Your task to perform on an android device: What's the weather? Image 0: 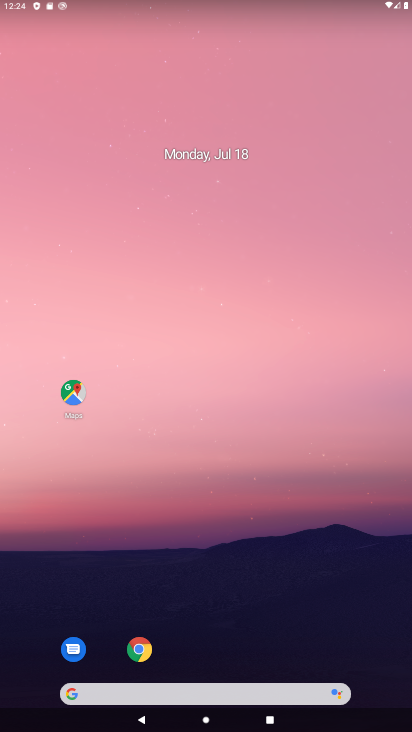
Step 0: click (106, 693)
Your task to perform on an android device: What's the weather? Image 1: 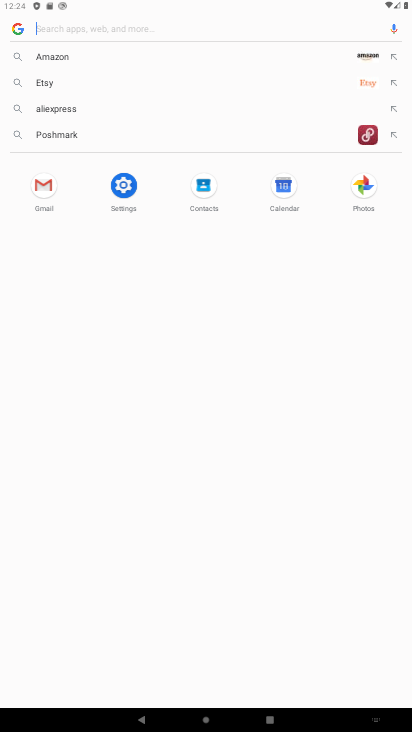
Step 1: type "What's the weather?"
Your task to perform on an android device: What's the weather? Image 2: 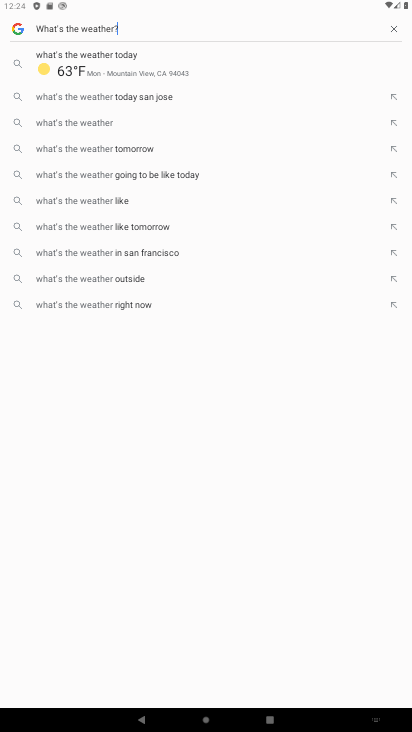
Step 2: type ""
Your task to perform on an android device: What's the weather? Image 3: 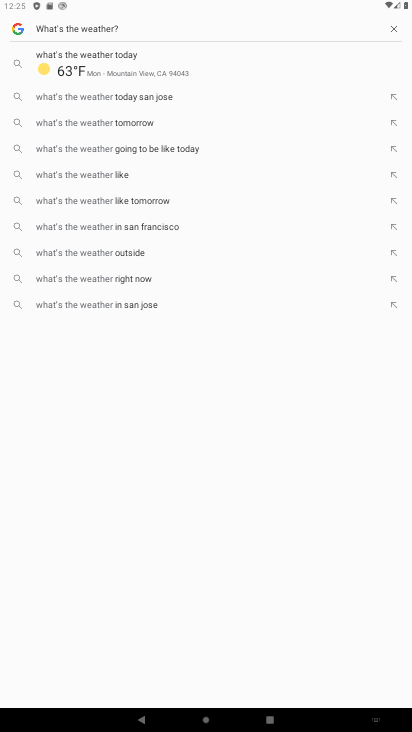
Step 3: type ""
Your task to perform on an android device: What's the weather? Image 4: 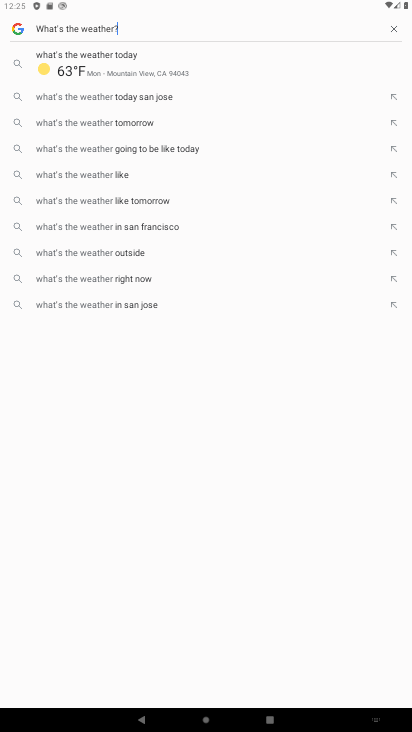
Step 4: type ""
Your task to perform on an android device: What's the weather? Image 5: 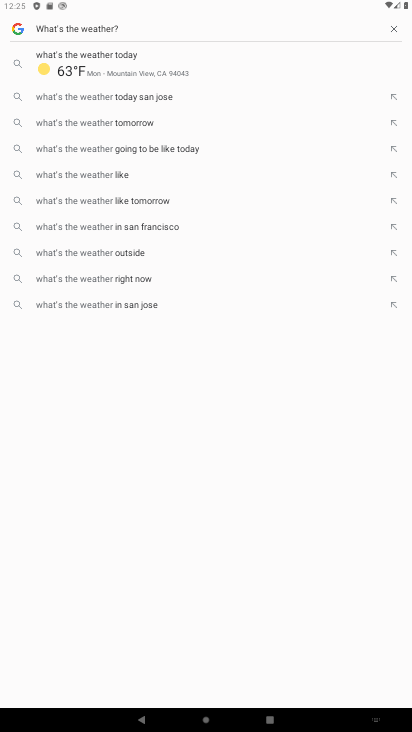
Step 5: type ""
Your task to perform on an android device: What's the weather? Image 6: 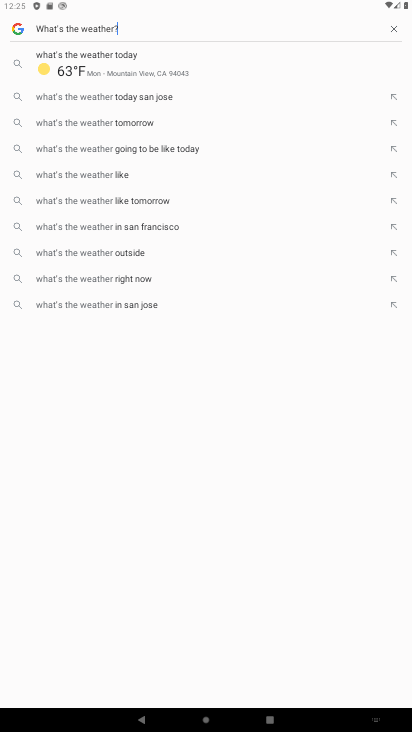
Step 6: task complete